Your task to perform on an android device: turn on data saver in the chrome app Image 0: 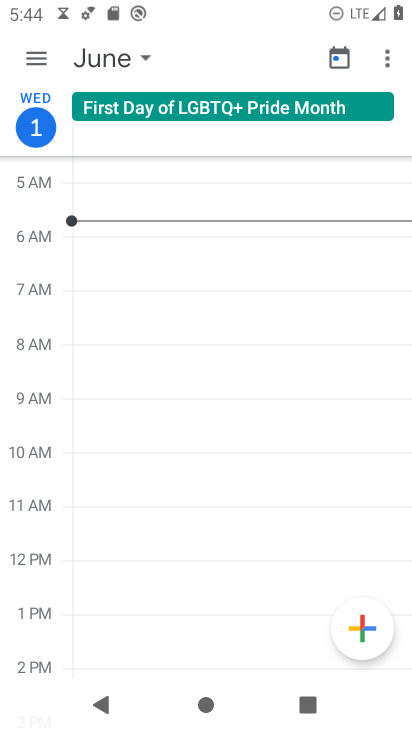
Step 0: press back button
Your task to perform on an android device: turn on data saver in the chrome app Image 1: 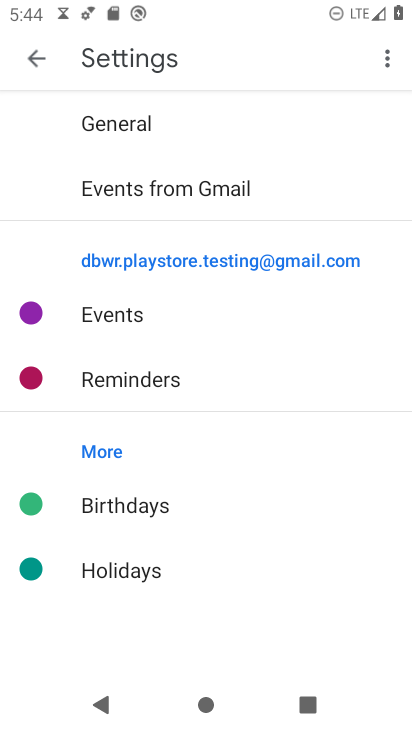
Step 1: press home button
Your task to perform on an android device: turn on data saver in the chrome app Image 2: 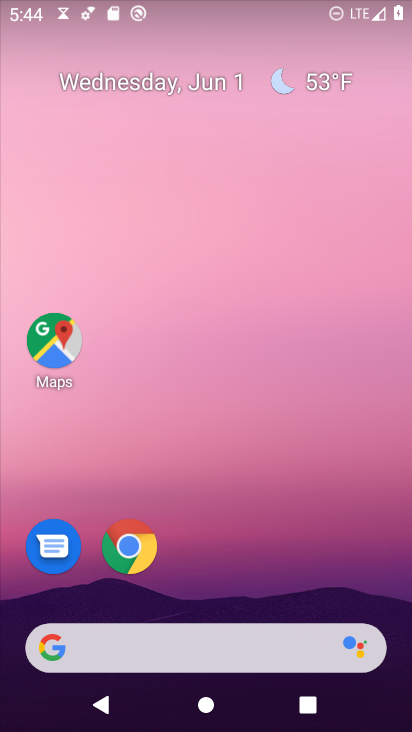
Step 2: drag from (277, 558) to (219, 7)
Your task to perform on an android device: turn on data saver in the chrome app Image 3: 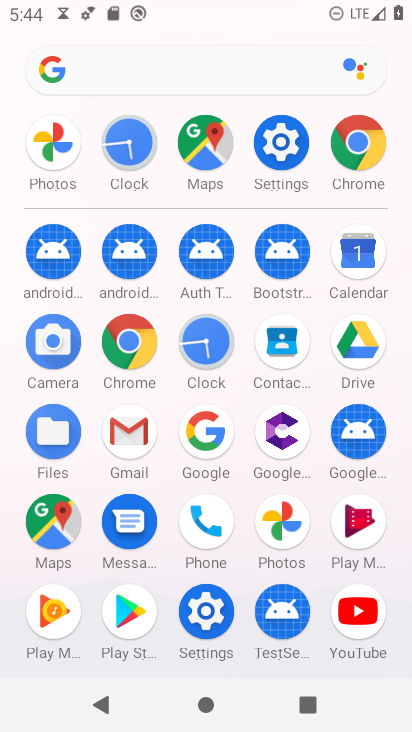
Step 3: click (210, 605)
Your task to perform on an android device: turn on data saver in the chrome app Image 4: 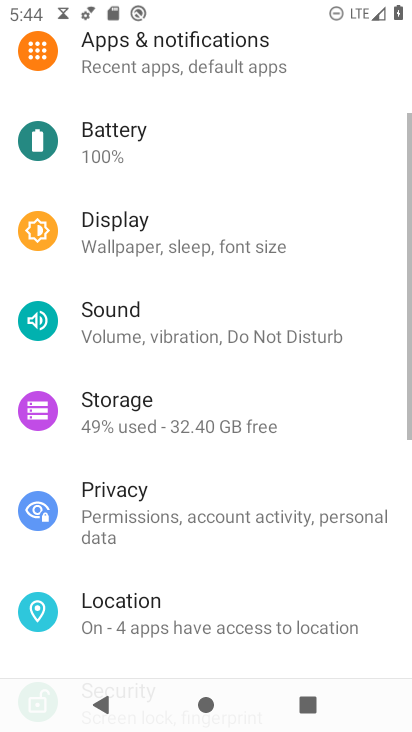
Step 4: press back button
Your task to perform on an android device: turn on data saver in the chrome app Image 5: 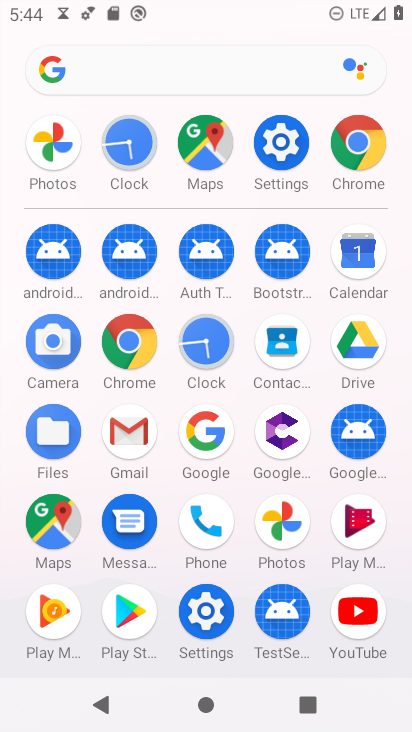
Step 5: click (121, 337)
Your task to perform on an android device: turn on data saver in the chrome app Image 6: 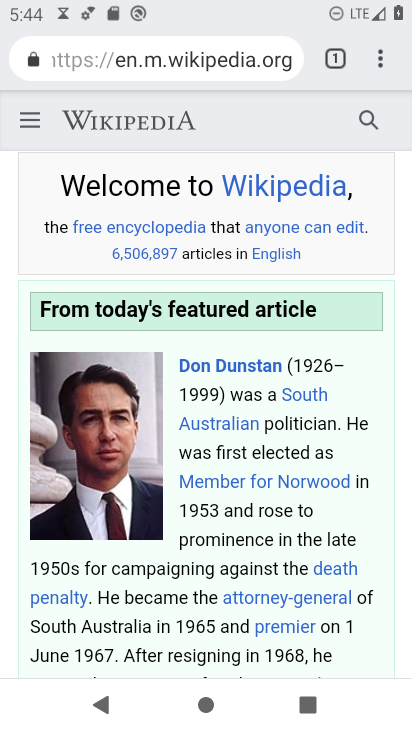
Step 6: drag from (382, 59) to (205, 571)
Your task to perform on an android device: turn on data saver in the chrome app Image 7: 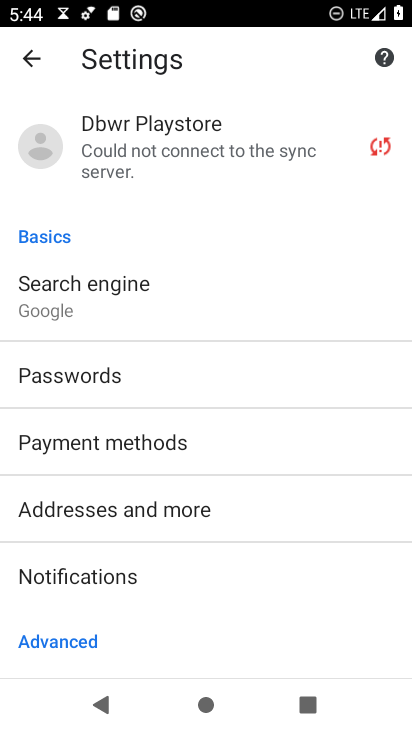
Step 7: drag from (214, 567) to (237, 169)
Your task to perform on an android device: turn on data saver in the chrome app Image 8: 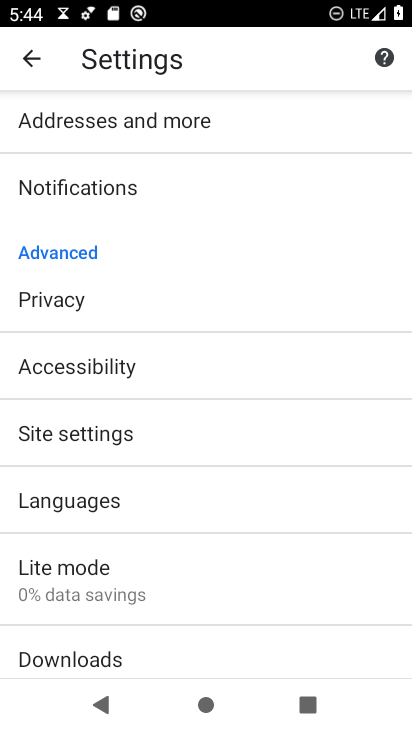
Step 8: drag from (187, 606) to (222, 274)
Your task to perform on an android device: turn on data saver in the chrome app Image 9: 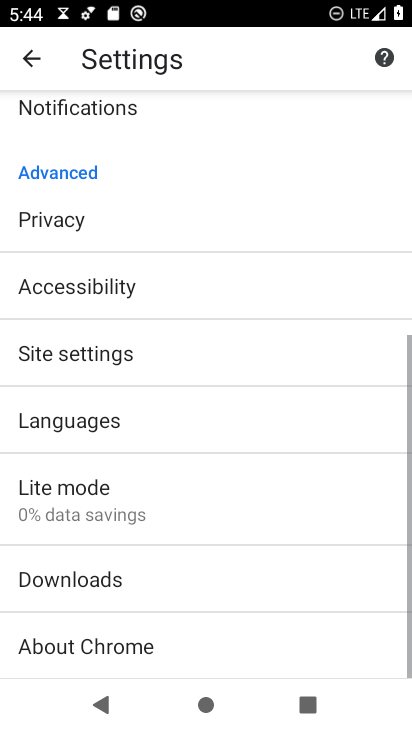
Step 9: click (150, 566)
Your task to perform on an android device: turn on data saver in the chrome app Image 10: 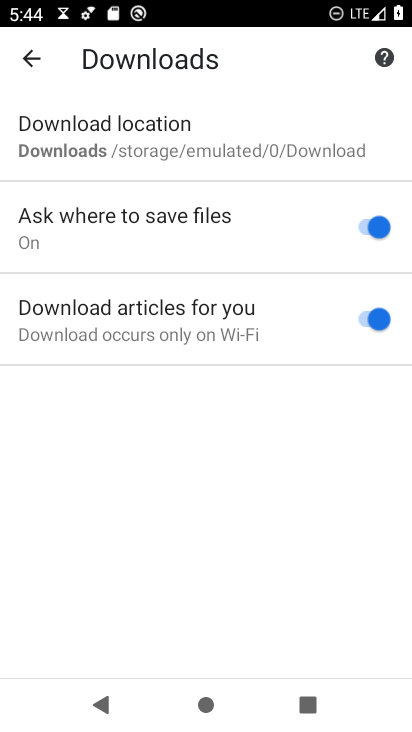
Step 10: click (34, 68)
Your task to perform on an android device: turn on data saver in the chrome app Image 11: 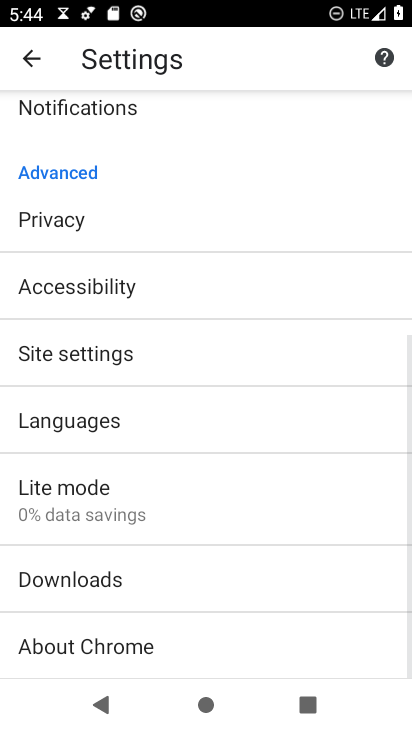
Step 11: click (139, 489)
Your task to perform on an android device: turn on data saver in the chrome app Image 12: 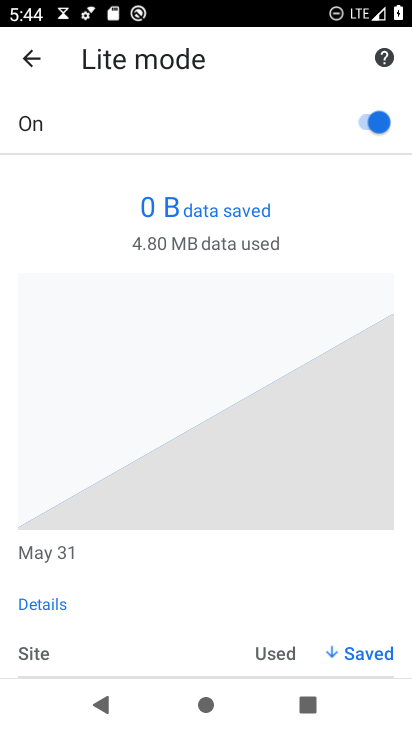
Step 12: task complete